Your task to perform on an android device: search for starred emails in the gmail app Image 0: 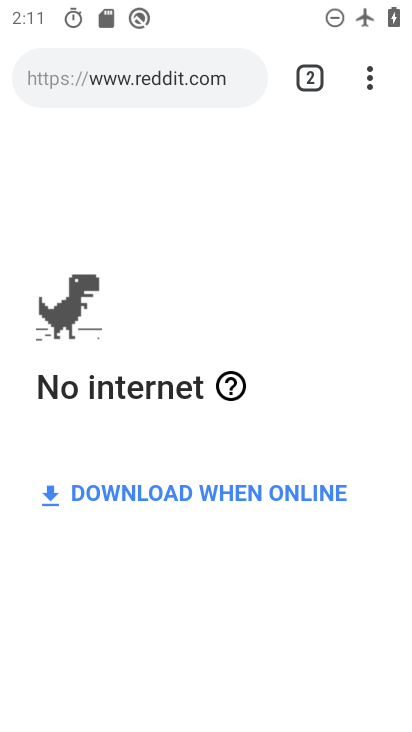
Step 0: press home button
Your task to perform on an android device: search for starred emails in the gmail app Image 1: 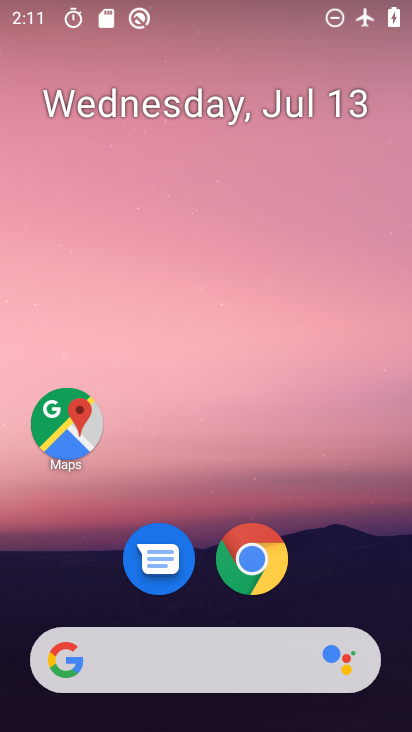
Step 1: drag from (210, 624) to (280, 217)
Your task to perform on an android device: search for starred emails in the gmail app Image 2: 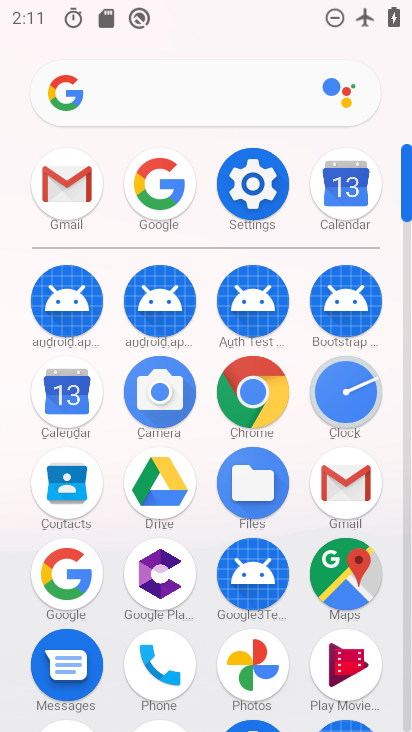
Step 2: click (333, 495)
Your task to perform on an android device: search for starred emails in the gmail app Image 3: 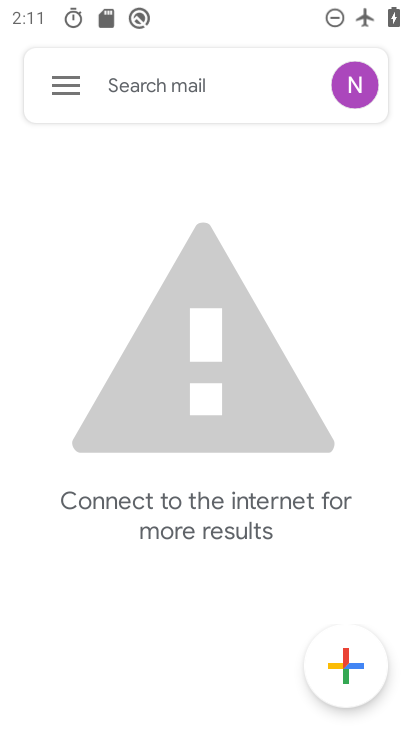
Step 3: click (83, 97)
Your task to perform on an android device: search for starred emails in the gmail app Image 4: 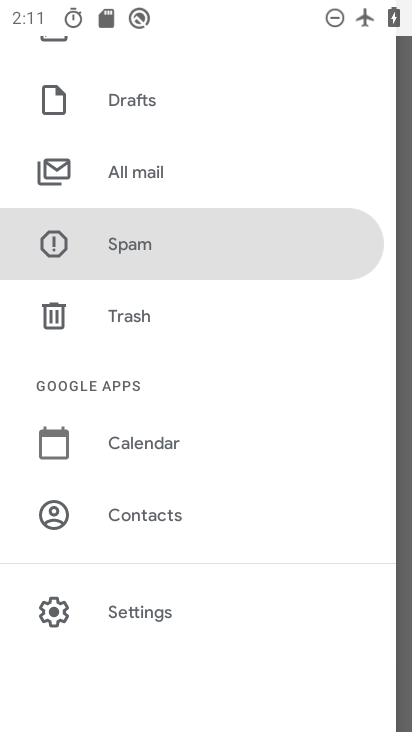
Step 4: drag from (157, 326) to (142, 675)
Your task to perform on an android device: search for starred emails in the gmail app Image 5: 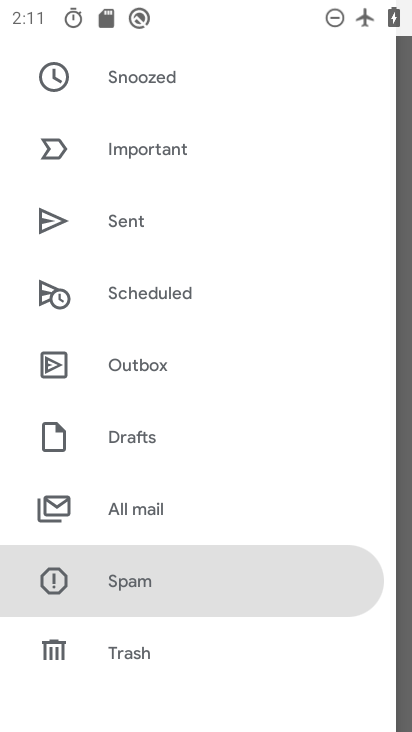
Step 5: drag from (139, 262) to (162, 576)
Your task to perform on an android device: search for starred emails in the gmail app Image 6: 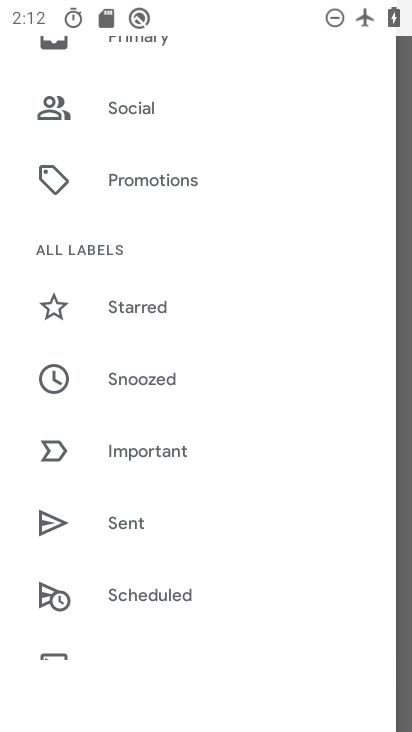
Step 6: click (124, 308)
Your task to perform on an android device: search for starred emails in the gmail app Image 7: 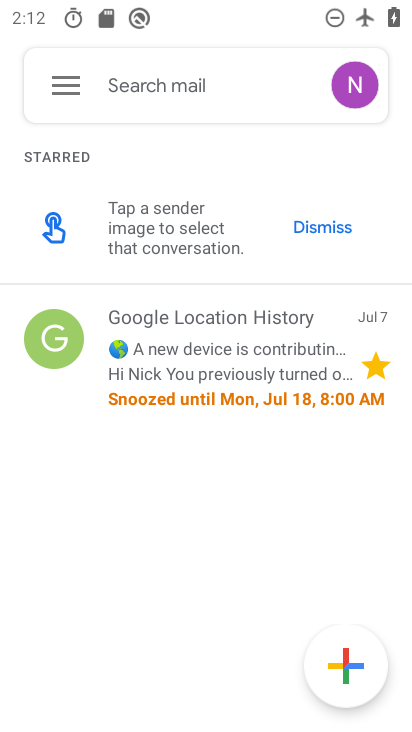
Step 7: task complete